Your task to perform on an android device: refresh tabs in the chrome app Image 0: 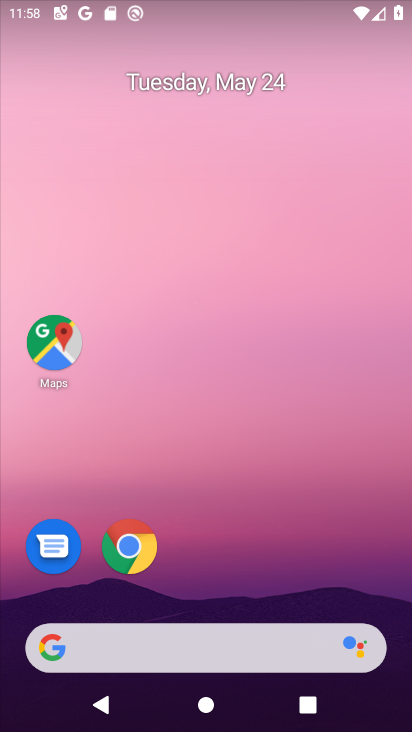
Step 0: click (139, 541)
Your task to perform on an android device: refresh tabs in the chrome app Image 1: 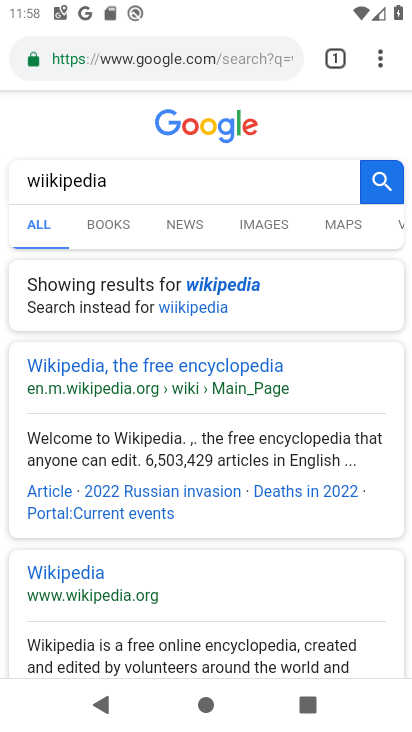
Step 1: click (383, 54)
Your task to perform on an android device: refresh tabs in the chrome app Image 2: 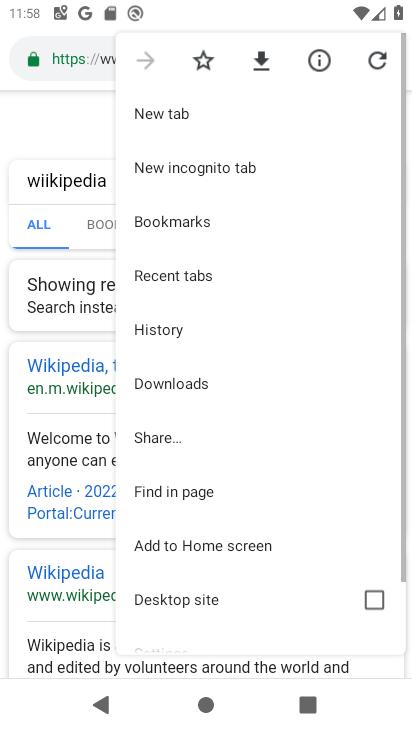
Step 2: click (378, 59)
Your task to perform on an android device: refresh tabs in the chrome app Image 3: 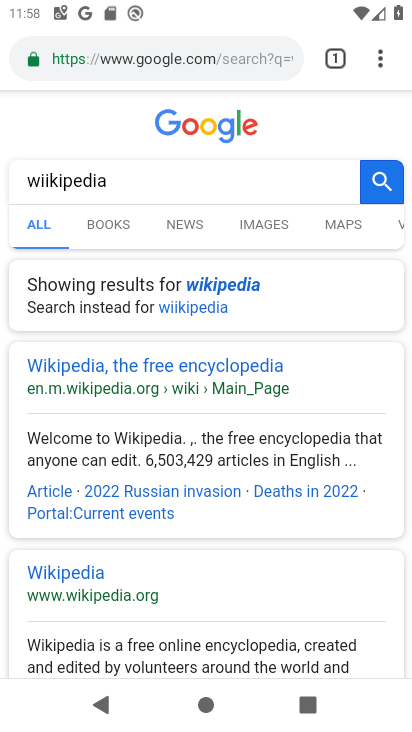
Step 3: task complete